Your task to perform on an android device: Show me productivity apps on the Play Store Image 0: 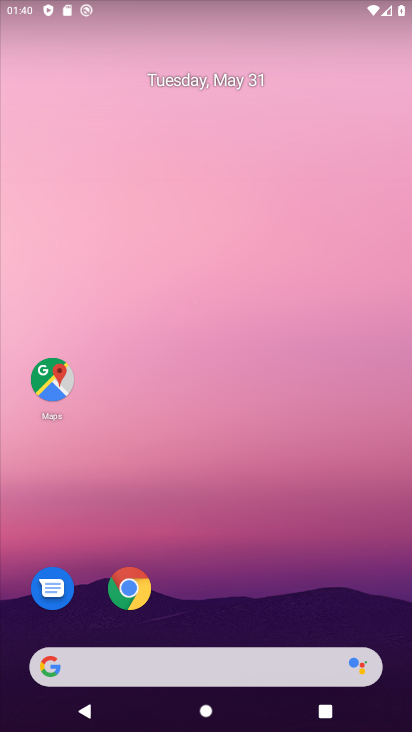
Step 0: drag from (362, 602) to (354, 228)
Your task to perform on an android device: Show me productivity apps on the Play Store Image 1: 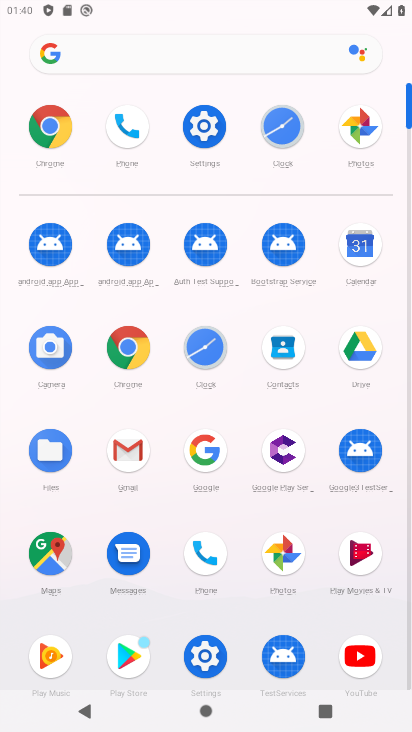
Step 1: drag from (315, 621) to (318, 398)
Your task to perform on an android device: Show me productivity apps on the Play Store Image 2: 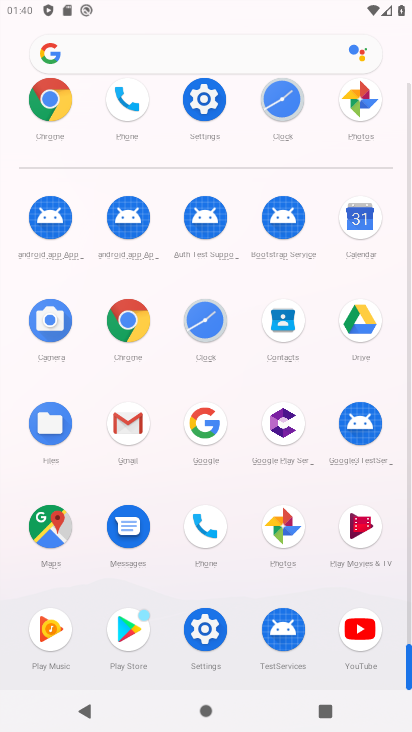
Step 2: click (122, 628)
Your task to perform on an android device: Show me productivity apps on the Play Store Image 3: 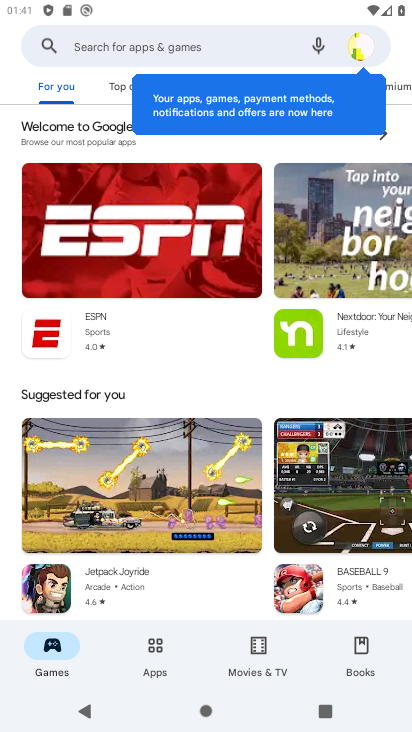
Step 3: click (147, 653)
Your task to perform on an android device: Show me productivity apps on the Play Store Image 4: 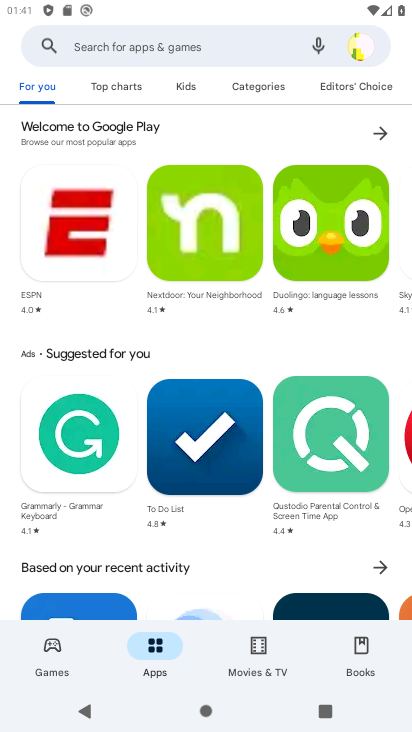
Step 4: task complete